Your task to perform on an android device: Go to location settings Image 0: 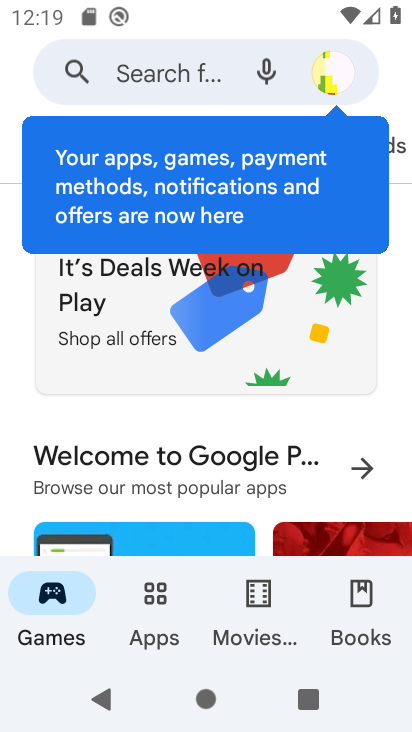
Step 0: press home button
Your task to perform on an android device: Go to location settings Image 1: 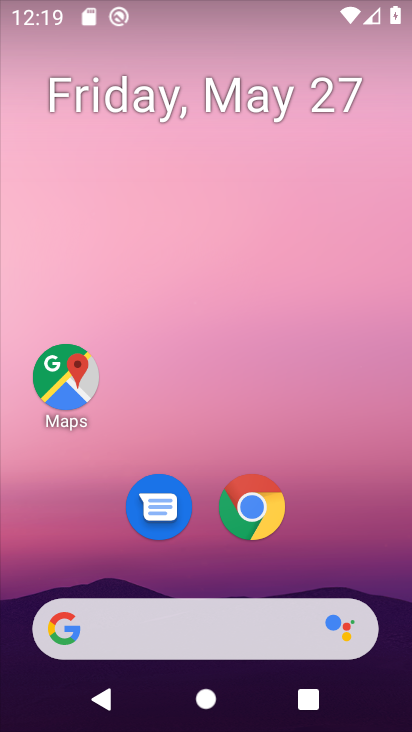
Step 1: drag from (81, 599) to (171, 150)
Your task to perform on an android device: Go to location settings Image 2: 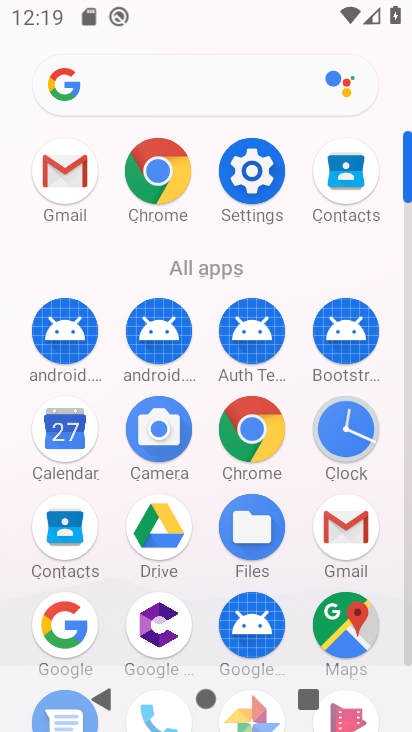
Step 2: drag from (168, 609) to (216, 382)
Your task to perform on an android device: Go to location settings Image 3: 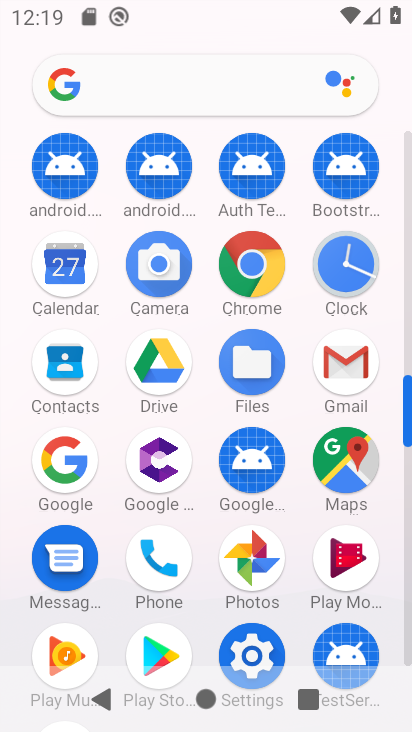
Step 3: click (246, 629)
Your task to perform on an android device: Go to location settings Image 4: 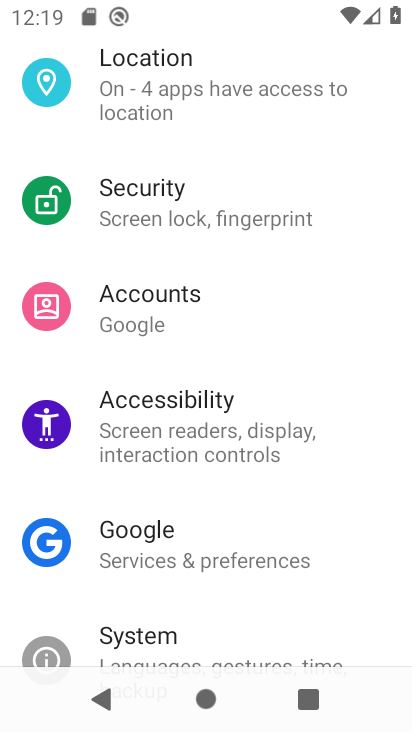
Step 4: drag from (152, 582) to (222, 276)
Your task to perform on an android device: Go to location settings Image 5: 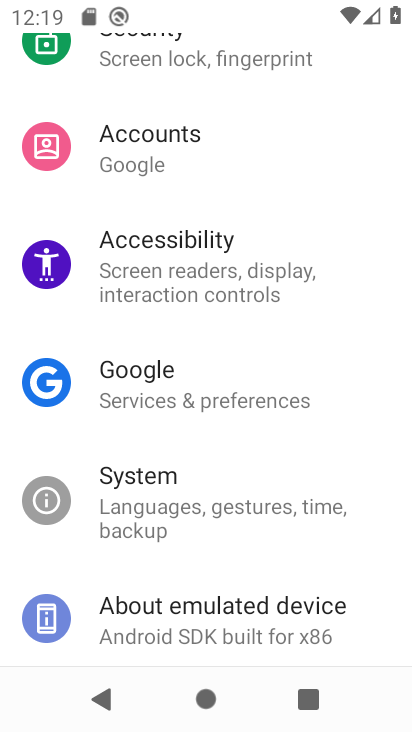
Step 5: drag from (223, 191) to (211, 627)
Your task to perform on an android device: Go to location settings Image 6: 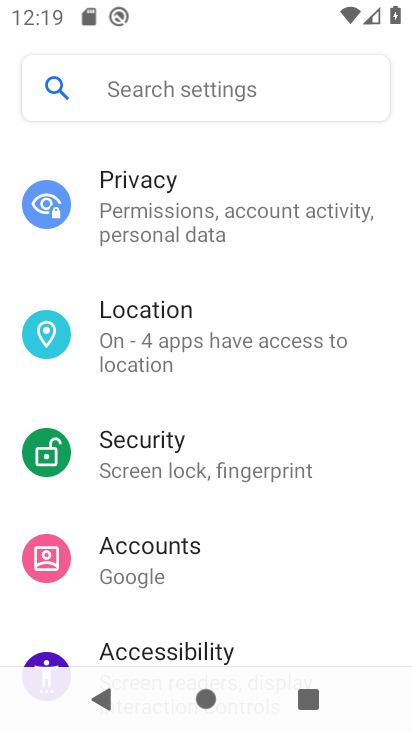
Step 6: click (176, 350)
Your task to perform on an android device: Go to location settings Image 7: 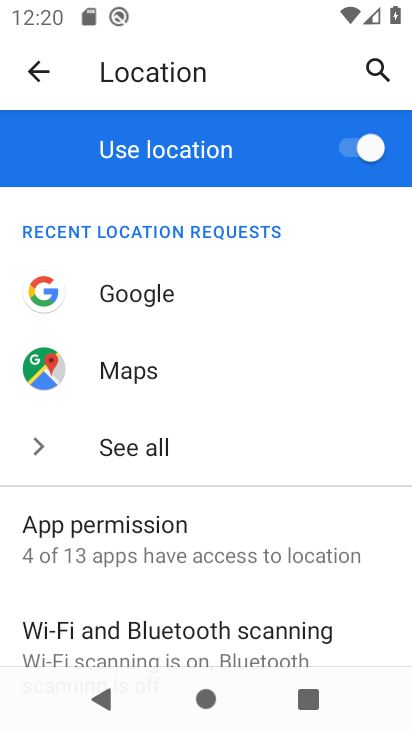
Step 7: task complete